Your task to perform on an android device: turn off notifications settings in the gmail app Image 0: 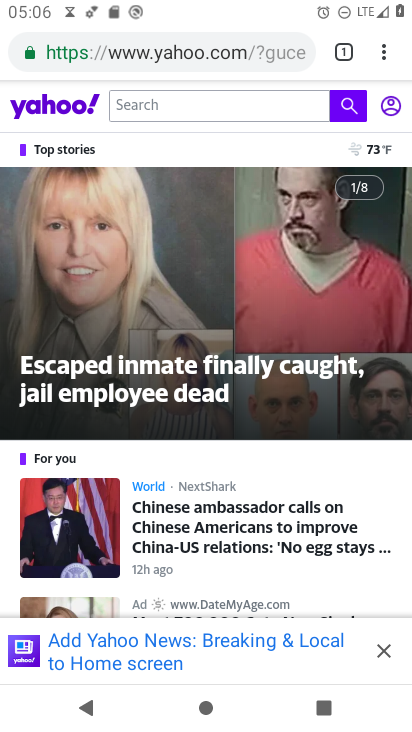
Step 0: press back button
Your task to perform on an android device: turn off notifications settings in the gmail app Image 1: 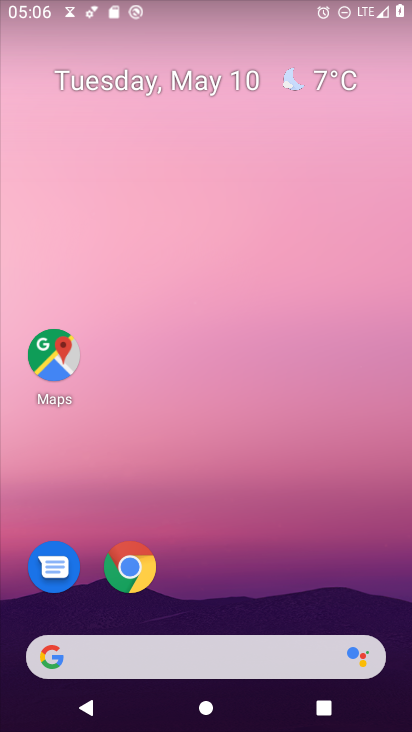
Step 1: drag from (241, 532) to (237, 22)
Your task to perform on an android device: turn off notifications settings in the gmail app Image 2: 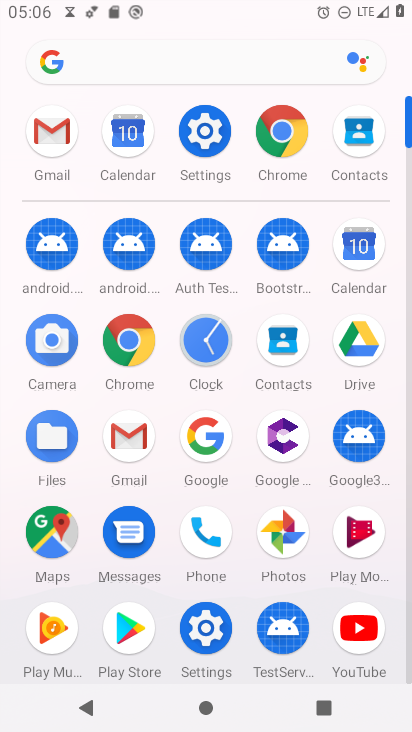
Step 2: click (49, 129)
Your task to perform on an android device: turn off notifications settings in the gmail app Image 3: 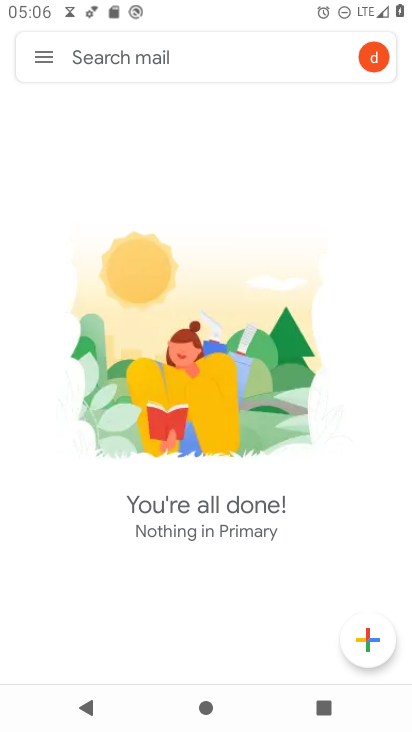
Step 3: click (41, 56)
Your task to perform on an android device: turn off notifications settings in the gmail app Image 4: 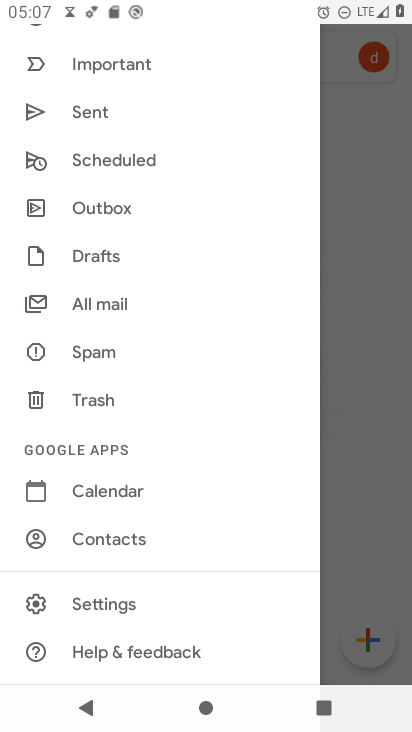
Step 4: click (98, 601)
Your task to perform on an android device: turn off notifications settings in the gmail app Image 5: 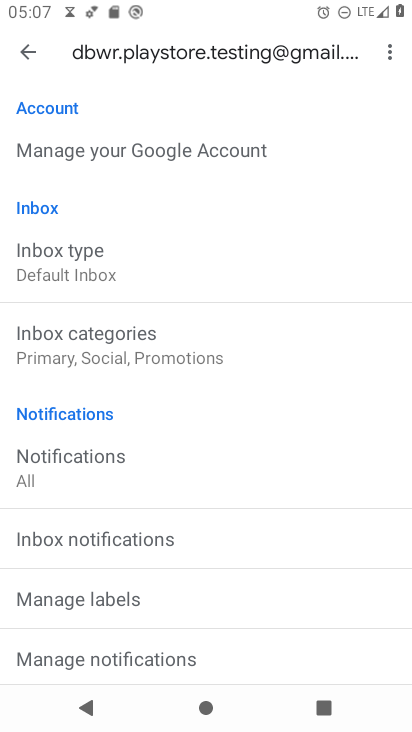
Step 5: drag from (81, 581) to (159, 453)
Your task to perform on an android device: turn off notifications settings in the gmail app Image 6: 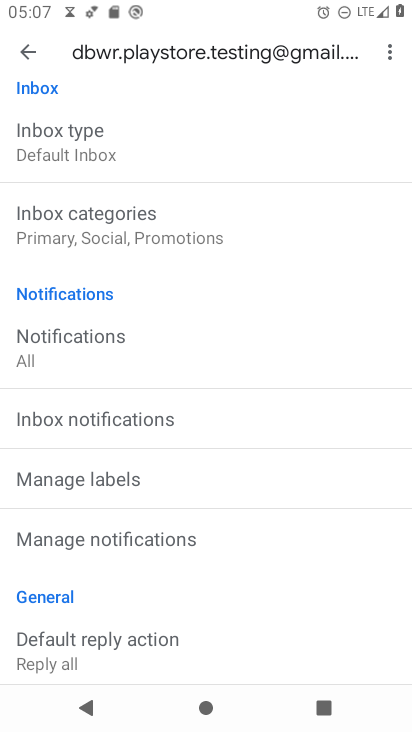
Step 6: click (120, 545)
Your task to perform on an android device: turn off notifications settings in the gmail app Image 7: 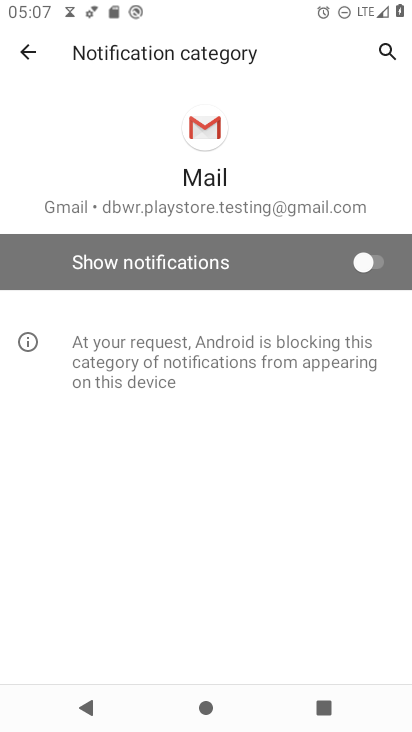
Step 7: task complete